Your task to perform on an android device: Open CNN.com Image 0: 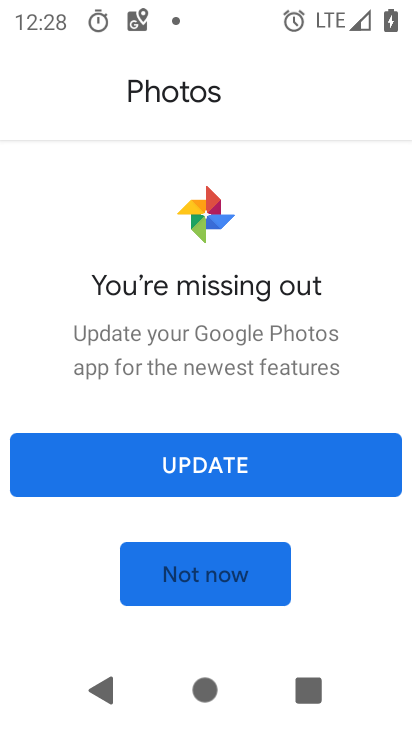
Step 0: press home button
Your task to perform on an android device: Open CNN.com Image 1: 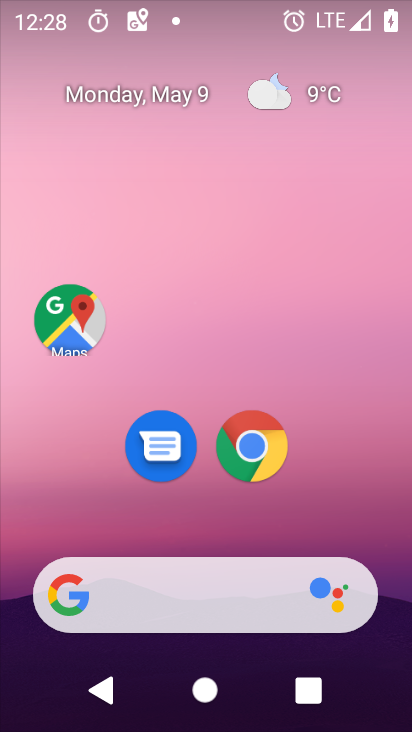
Step 1: click (247, 451)
Your task to perform on an android device: Open CNN.com Image 2: 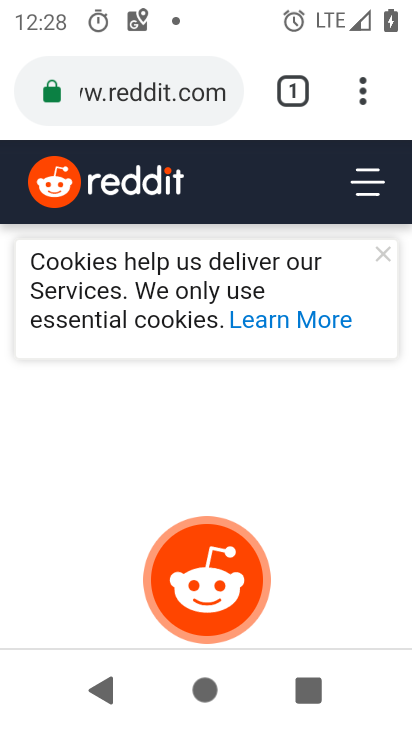
Step 2: click (108, 89)
Your task to perform on an android device: Open CNN.com Image 3: 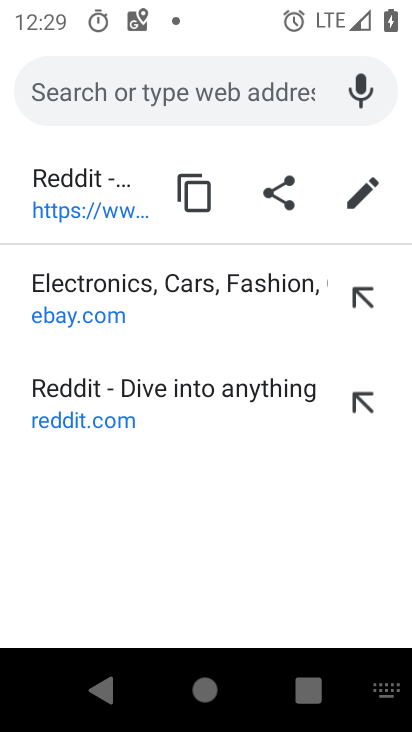
Step 3: type "cnn.com"
Your task to perform on an android device: Open CNN.com Image 4: 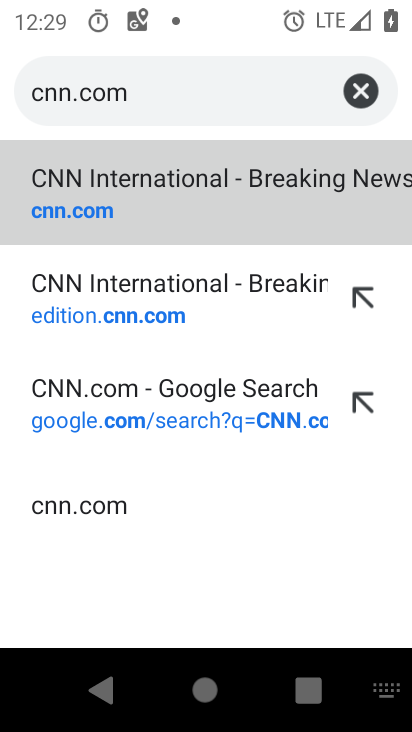
Step 4: click (71, 507)
Your task to perform on an android device: Open CNN.com Image 5: 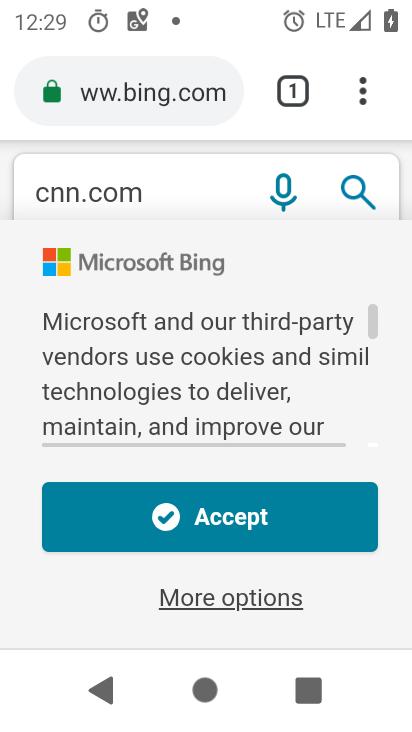
Step 5: click (67, 194)
Your task to perform on an android device: Open CNN.com Image 6: 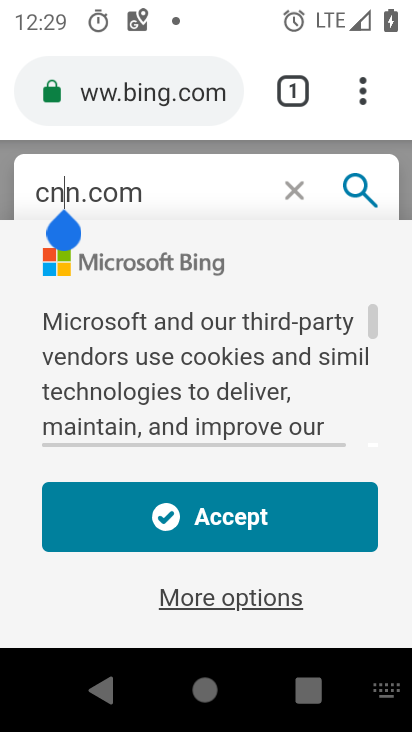
Step 6: click (220, 520)
Your task to perform on an android device: Open CNN.com Image 7: 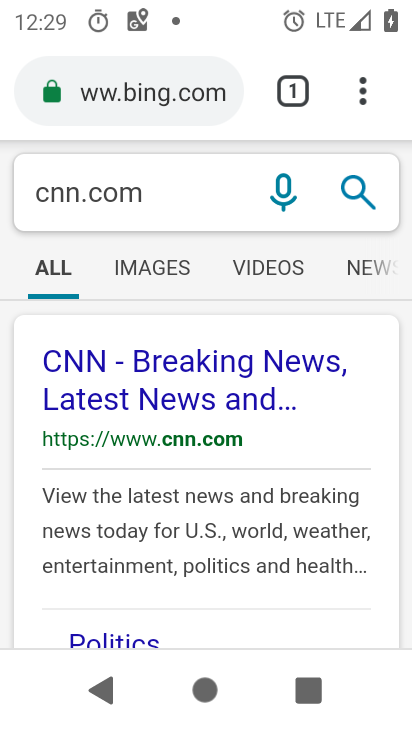
Step 7: click (112, 433)
Your task to perform on an android device: Open CNN.com Image 8: 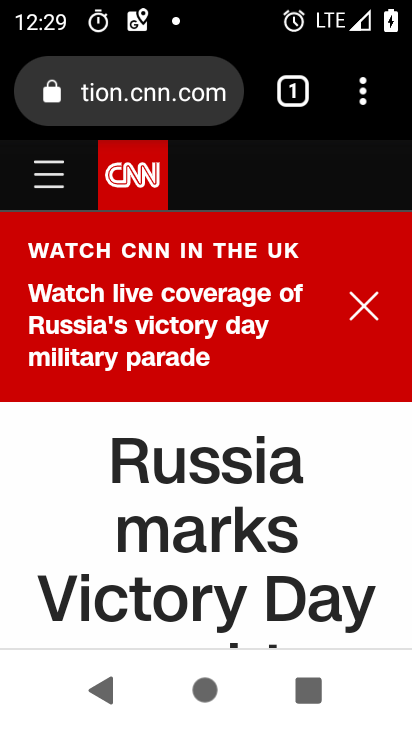
Step 8: task complete